Your task to perform on an android device: Search for Mexican restaurants on Maps Image 0: 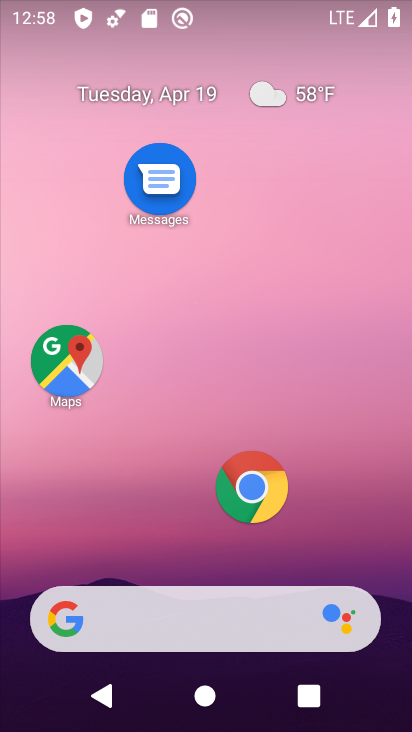
Step 0: click (66, 362)
Your task to perform on an android device: Search for Mexican restaurants on Maps Image 1: 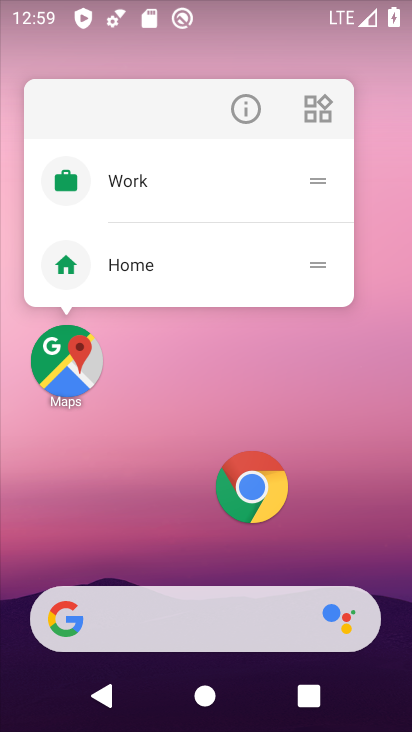
Step 1: click (71, 361)
Your task to perform on an android device: Search for Mexican restaurants on Maps Image 2: 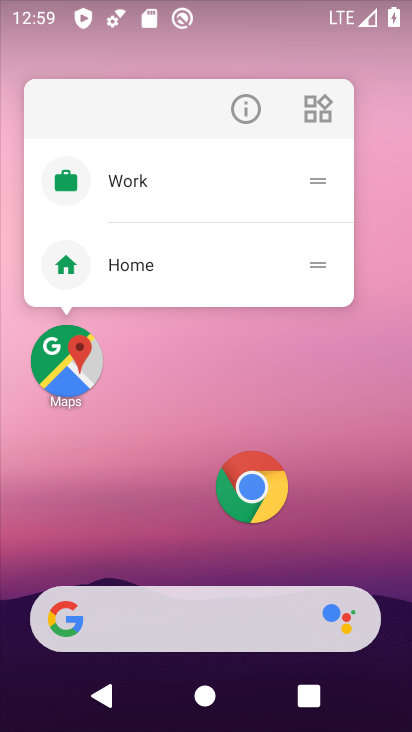
Step 2: click (65, 362)
Your task to perform on an android device: Search for Mexican restaurants on Maps Image 3: 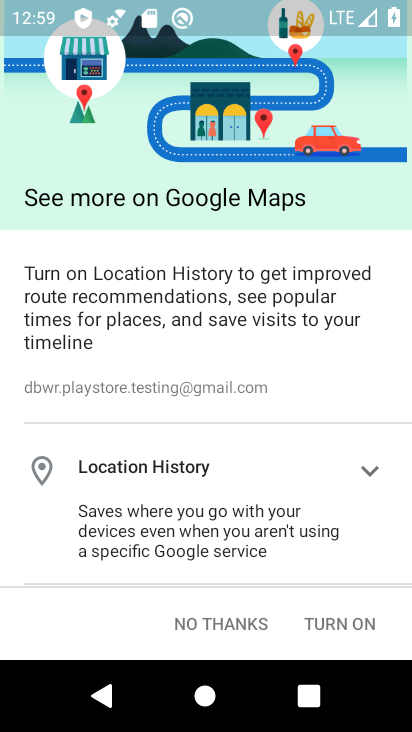
Step 3: click (243, 621)
Your task to perform on an android device: Search for Mexican restaurants on Maps Image 4: 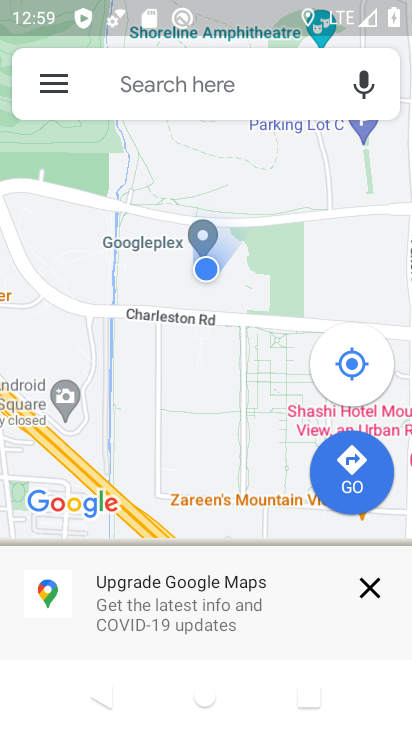
Step 4: click (156, 84)
Your task to perform on an android device: Search for Mexican restaurants on Maps Image 5: 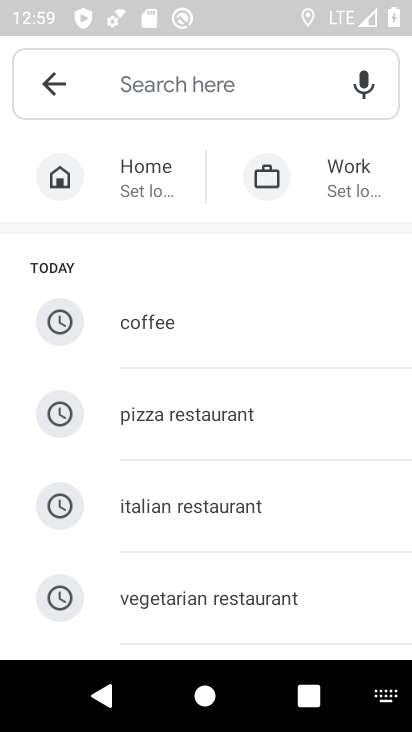
Step 5: drag from (195, 609) to (204, 285)
Your task to perform on an android device: Search for Mexican restaurants on Maps Image 6: 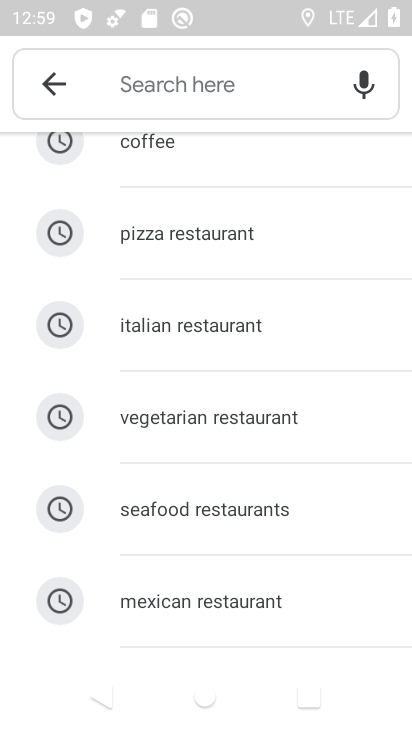
Step 6: click (194, 612)
Your task to perform on an android device: Search for Mexican restaurants on Maps Image 7: 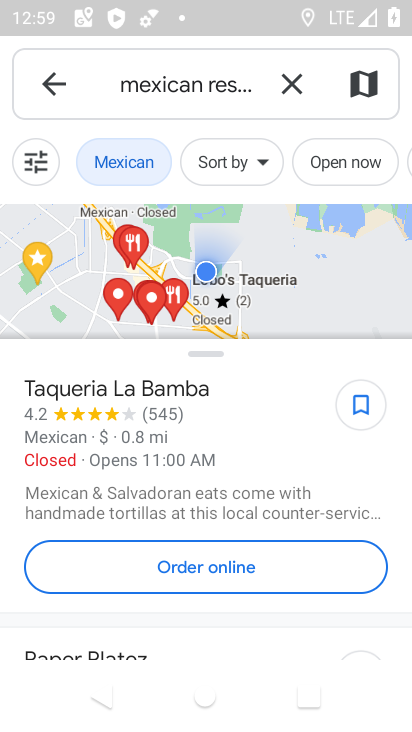
Step 7: task complete